Your task to perform on an android device: turn on location history Image 0: 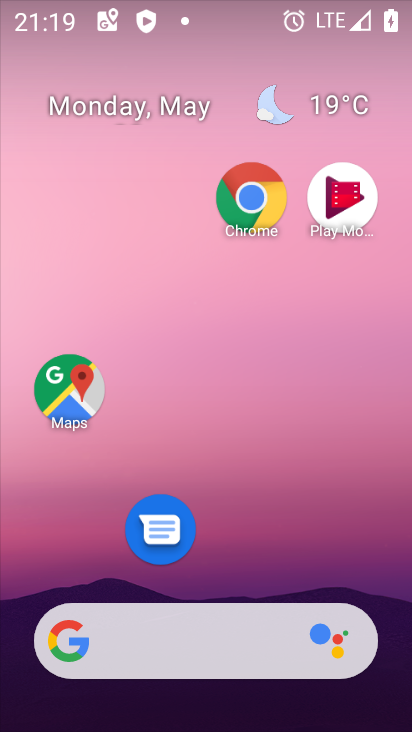
Step 0: drag from (240, 562) to (183, 67)
Your task to perform on an android device: turn on location history Image 1: 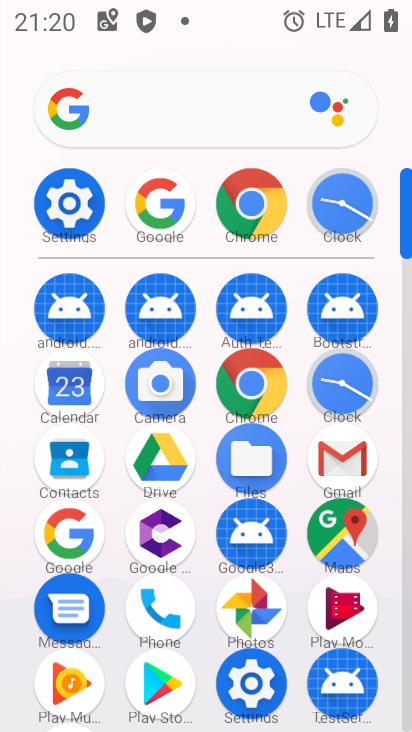
Step 1: click (73, 206)
Your task to perform on an android device: turn on location history Image 2: 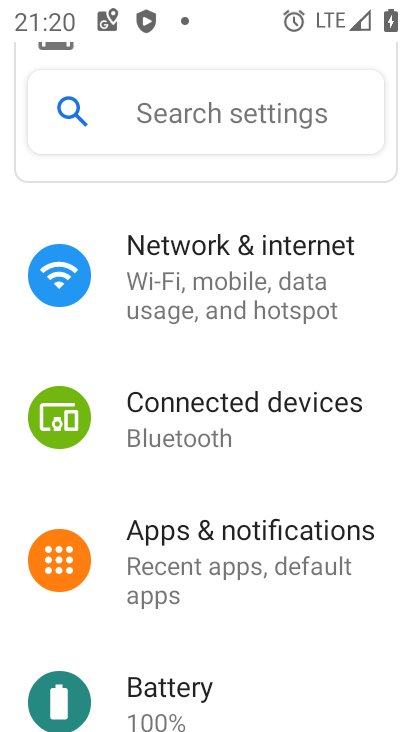
Step 2: drag from (227, 612) to (229, 299)
Your task to perform on an android device: turn on location history Image 3: 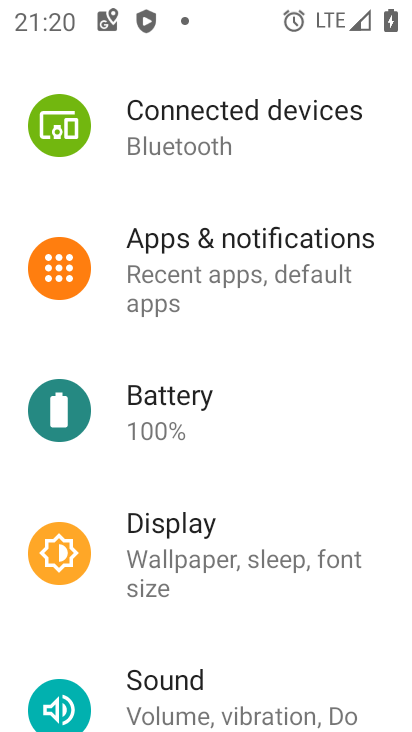
Step 3: drag from (214, 613) to (231, 286)
Your task to perform on an android device: turn on location history Image 4: 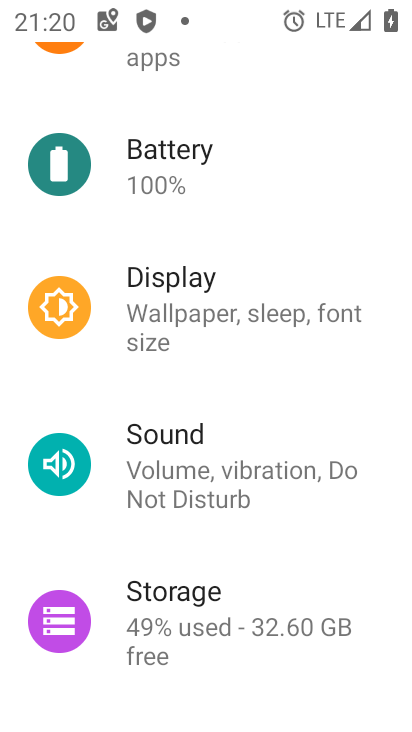
Step 4: drag from (204, 527) to (201, 208)
Your task to perform on an android device: turn on location history Image 5: 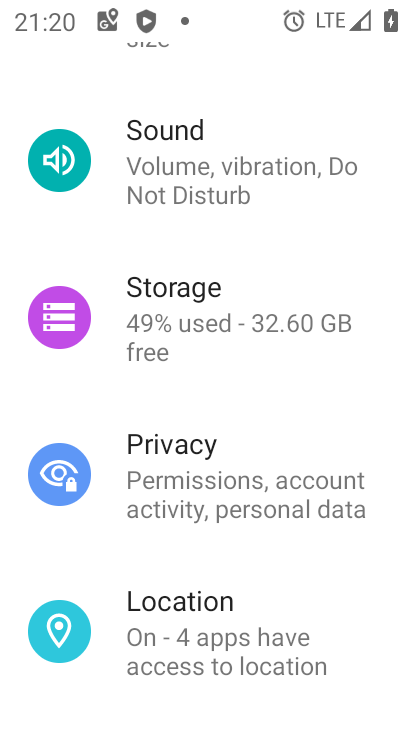
Step 5: click (195, 633)
Your task to perform on an android device: turn on location history Image 6: 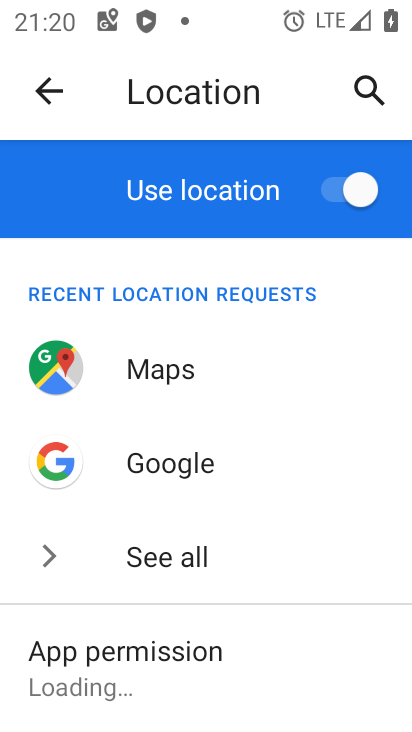
Step 6: drag from (192, 682) to (209, 417)
Your task to perform on an android device: turn on location history Image 7: 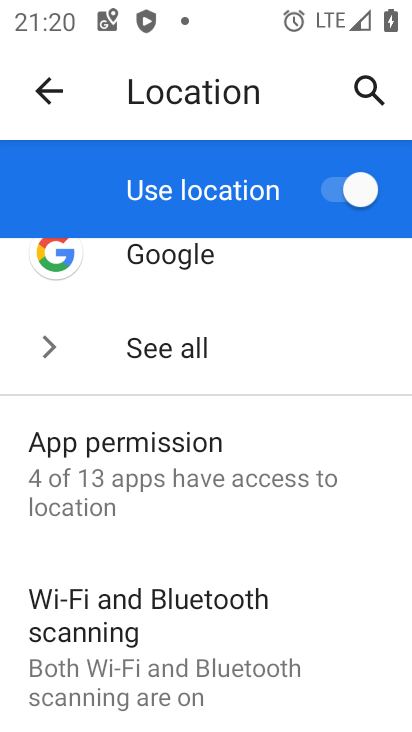
Step 7: drag from (184, 632) to (191, 395)
Your task to perform on an android device: turn on location history Image 8: 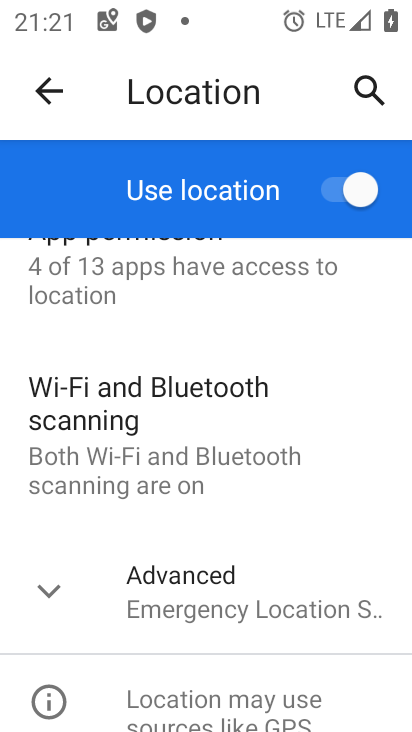
Step 8: click (164, 591)
Your task to perform on an android device: turn on location history Image 9: 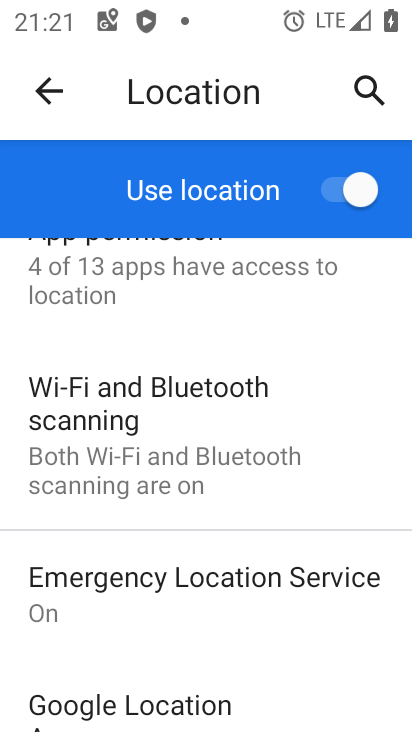
Step 9: drag from (167, 711) to (156, 541)
Your task to perform on an android device: turn on location history Image 10: 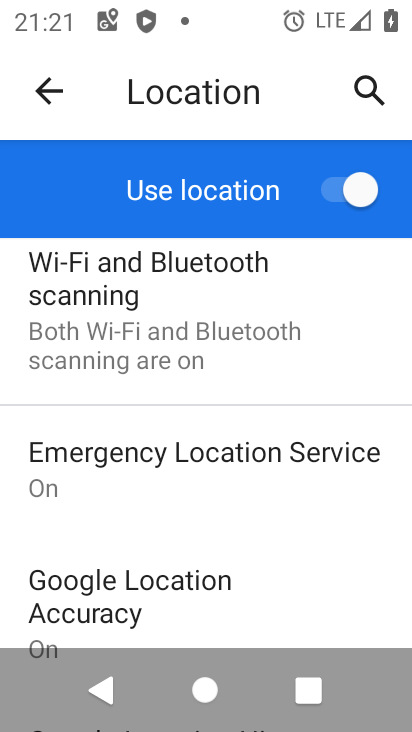
Step 10: drag from (147, 619) to (152, 476)
Your task to perform on an android device: turn on location history Image 11: 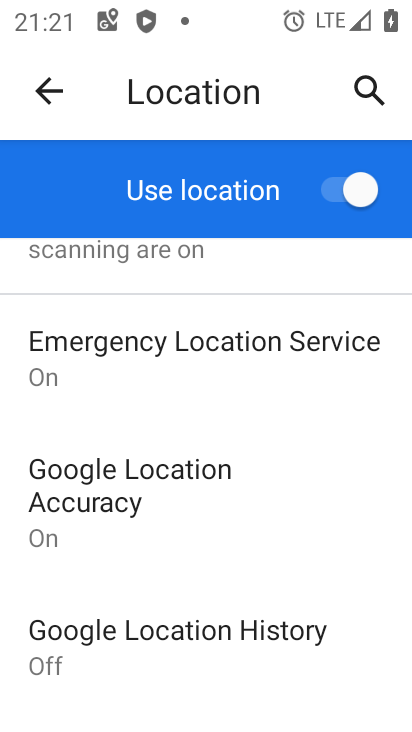
Step 11: click (188, 683)
Your task to perform on an android device: turn on location history Image 12: 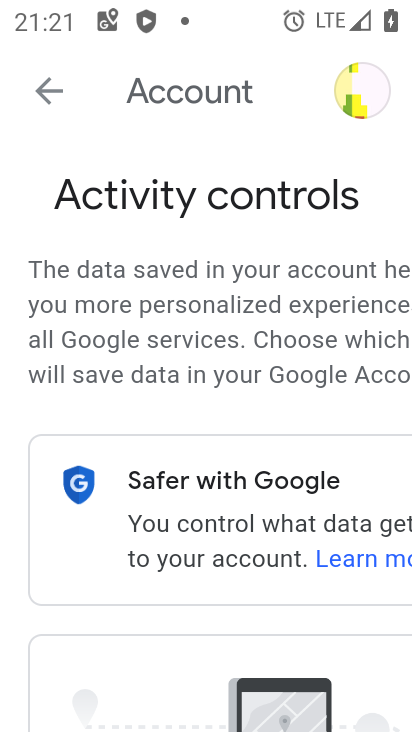
Step 12: drag from (198, 651) to (206, 279)
Your task to perform on an android device: turn on location history Image 13: 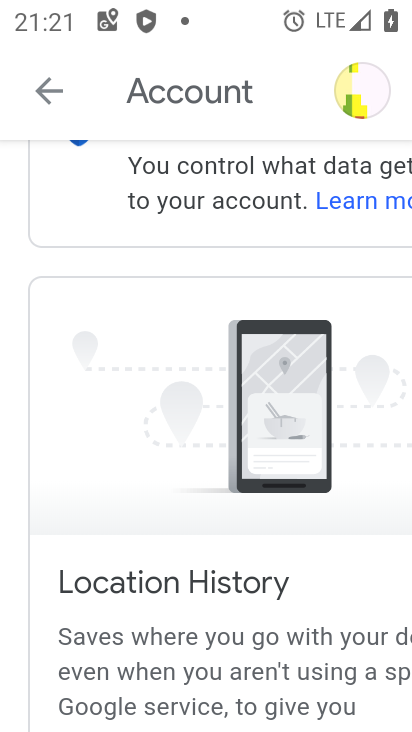
Step 13: drag from (199, 629) to (199, 235)
Your task to perform on an android device: turn on location history Image 14: 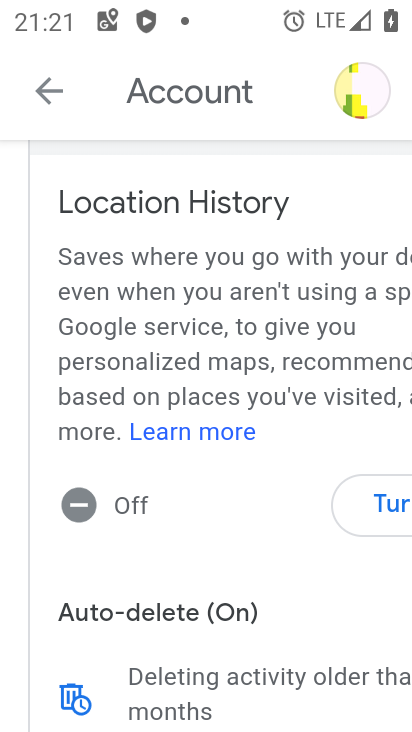
Step 14: click (366, 507)
Your task to perform on an android device: turn on location history Image 15: 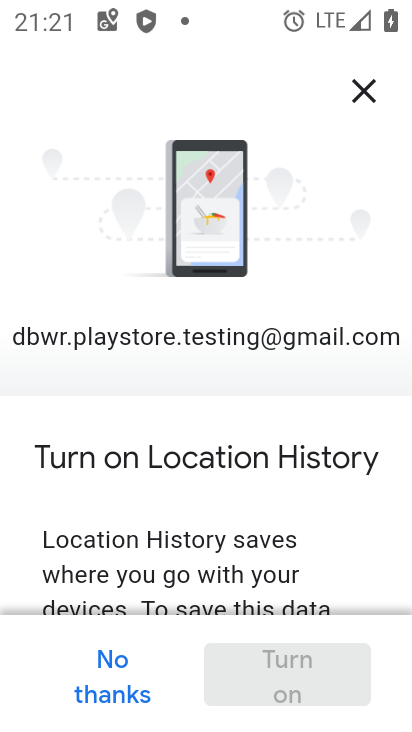
Step 15: drag from (250, 587) to (246, 337)
Your task to perform on an android device: turn on location history Image 16: 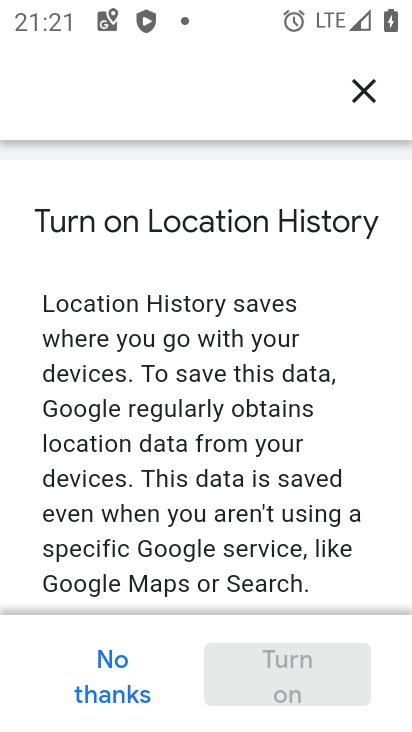
Step 16: drag from (270, 572) to (268, 317)
Your task to perform on an android device: turn on location history Image 17: 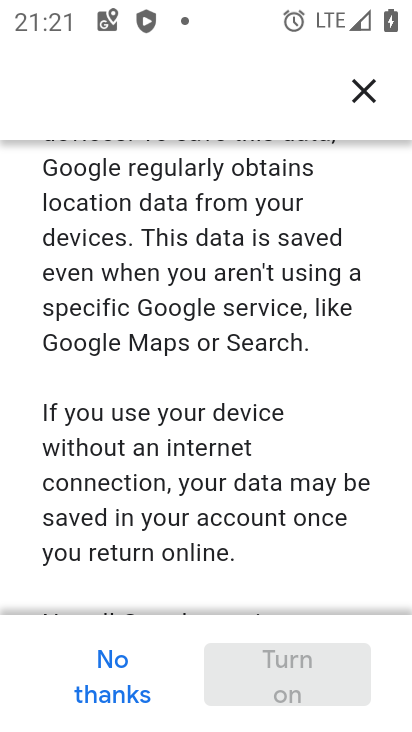
Step 17: drag from (261, 542) to (263, 286)
Your task to perform on an android device: turn on location history Image 18: 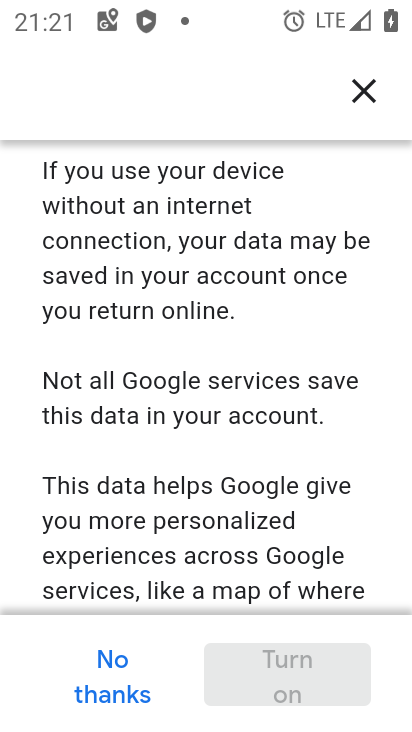
Step 18: drag from (247, 550) to (260, 236)
Your task to perform on an android device: turn on location history Image 19: 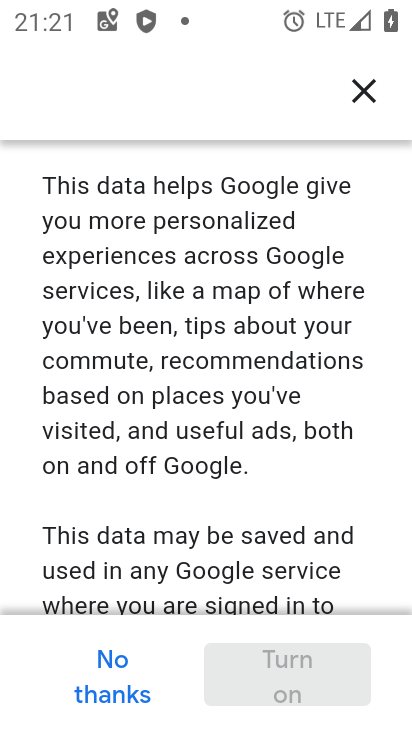
Step 19: drag from (239, 536) to (238, 253)
Your task to perform on an android device: turn on location history Image 20: 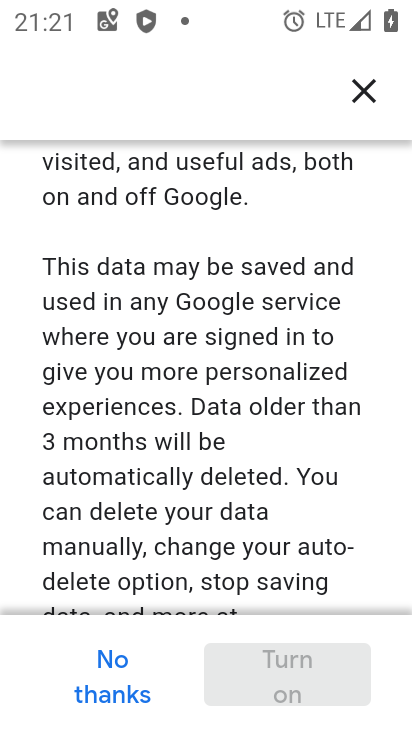
Step 20: drag from (257, 565) to (266, 265)
Your task to perform on an android device: turn on location history Image 21: 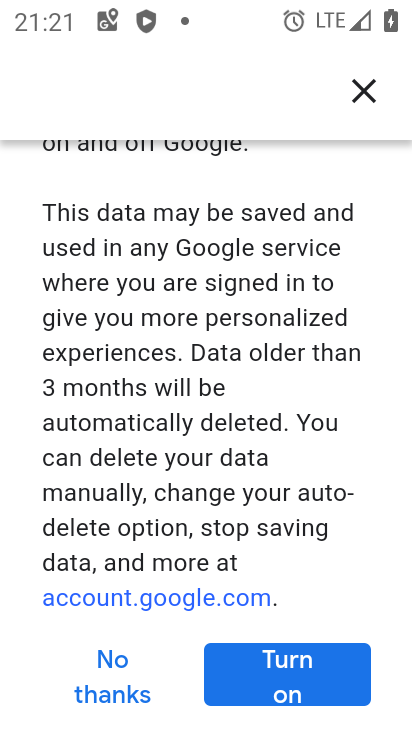
Step 21: click (284, 661)
Your task to perform on an android device: turn on location history Image 22: 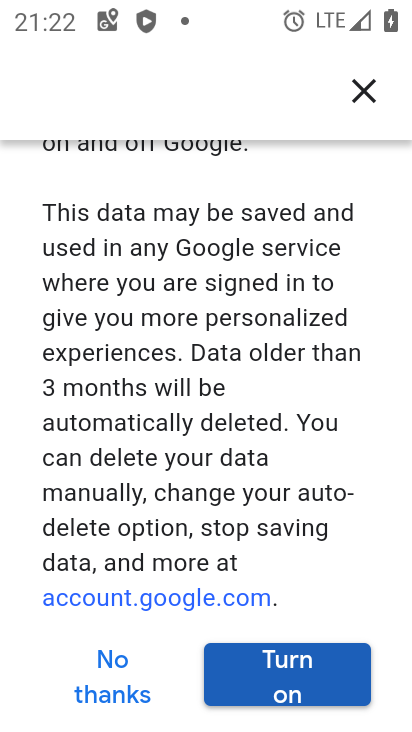
Step 22: click (285, 666)
Your task to perform on an android device: turn on location history Image 23: 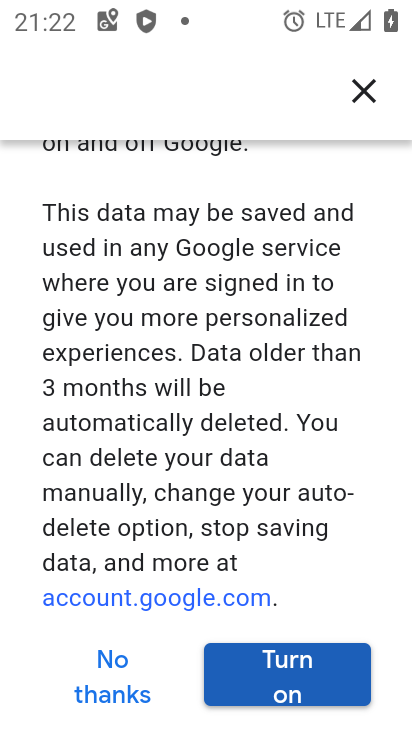
Step 23: click (303, 686)
Your task to perform on an android device: turn on location history Image 24: 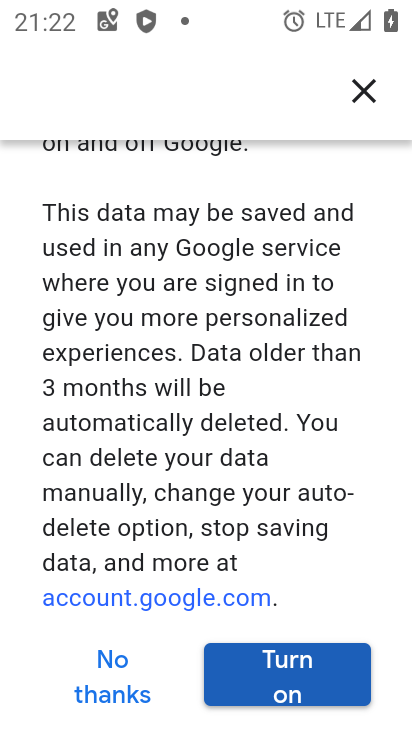
Step 24: click (303, 665)
Your task to perform on an android device: turn on location history Image 25: 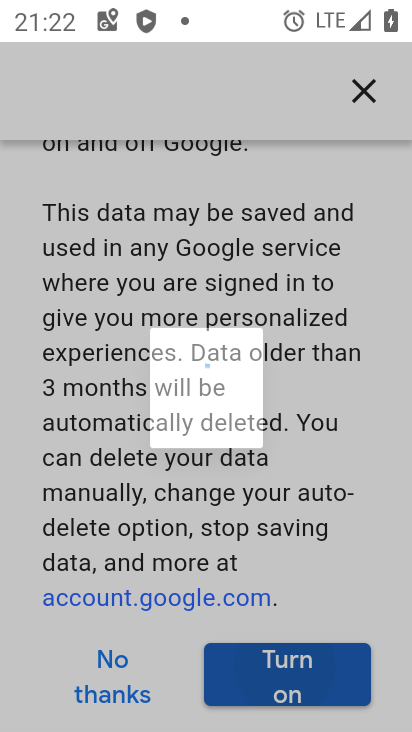
Step 25: click (290, 677)
Your task to perform on an android device: turn on location history Image 26: 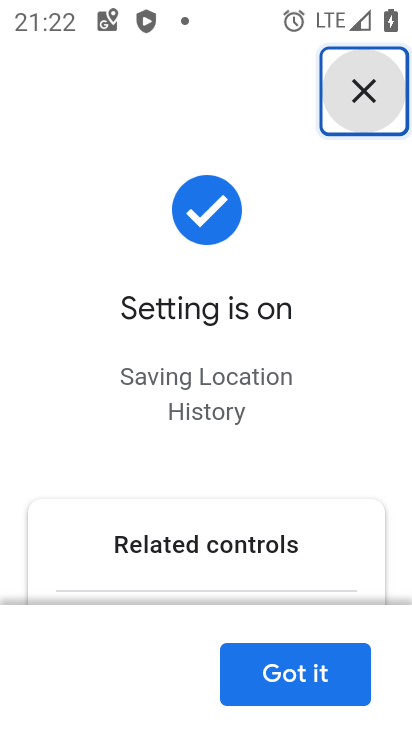
Step 26: click (333, 669)
Your task to perform on an android device: turn on location history Image 27: 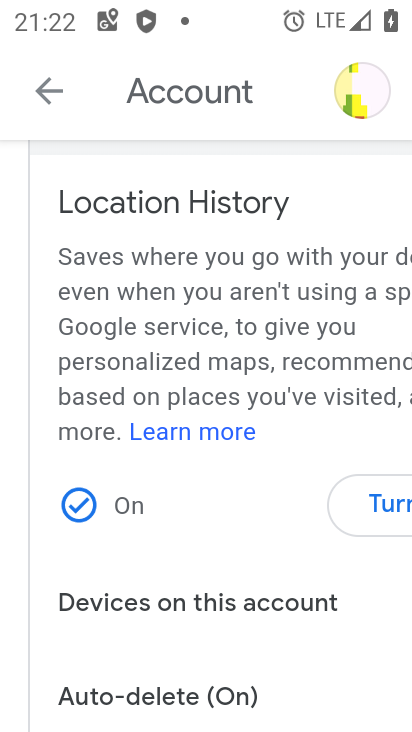
Step 27: task complete